Your task to perform on an android device: When is my next meeting? Image 0: 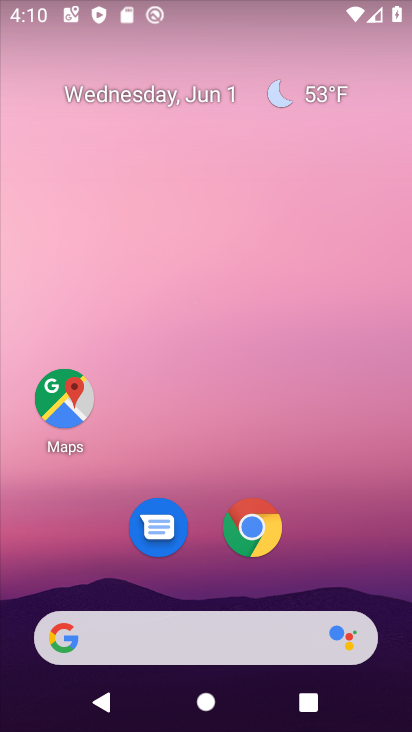
Step 0: drag from (315, 548) to (391, 66)
Your task to perform on an android device: When is my next meeting? Image 1: 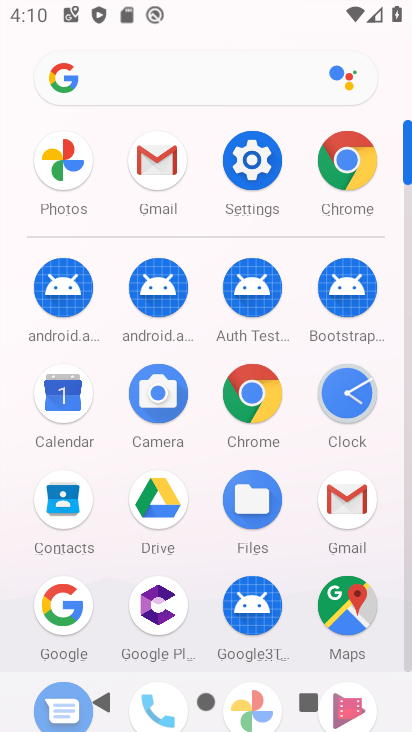
Step 1: click (63, 383)
Your task to perform on an android device: When is my next meeting? Image 2: 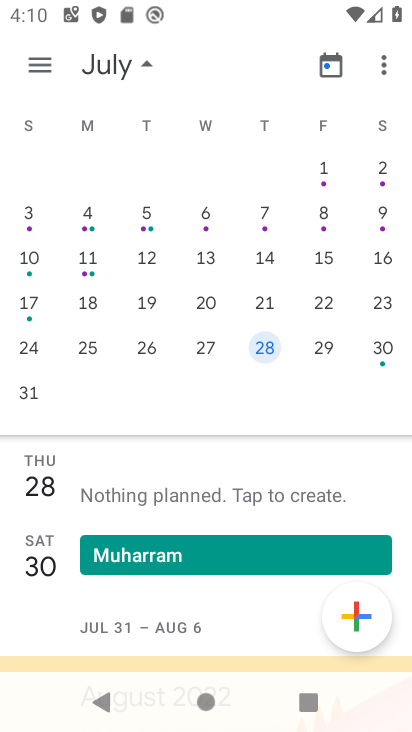
Step 2: drag from (61, 168) to (409, 192)
Your task to perform on an android device: When is my next meeting? Image 3: 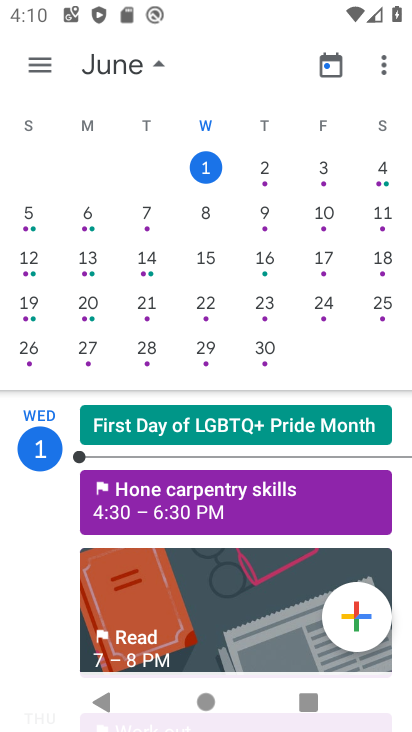
Step 3: click (204, 165)
Your task to perform on an android device: When is my next meeting? Image 4: 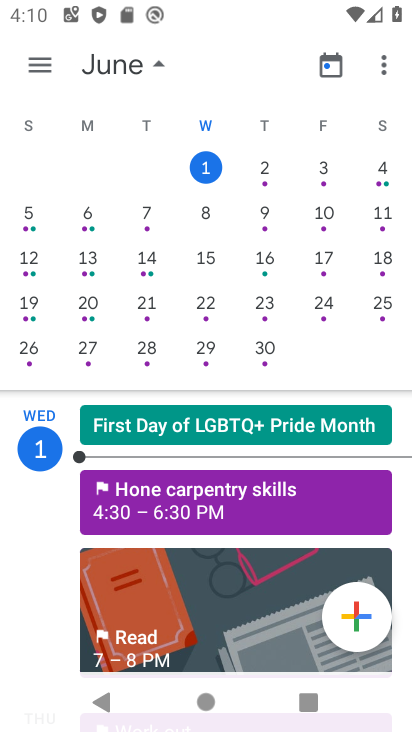
Step 4: task complete